Your task to perform on an android device: turn pop-ups off in chrome Image 0: 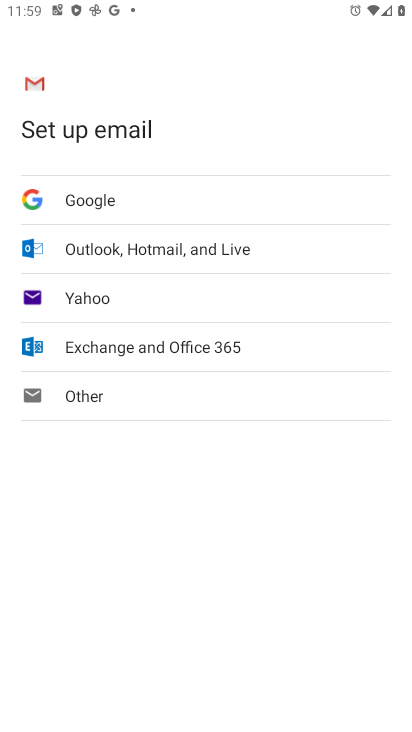
Step 0: press home button
Your task to perform on an android device: turn pop-ups off in chrome Image 1: 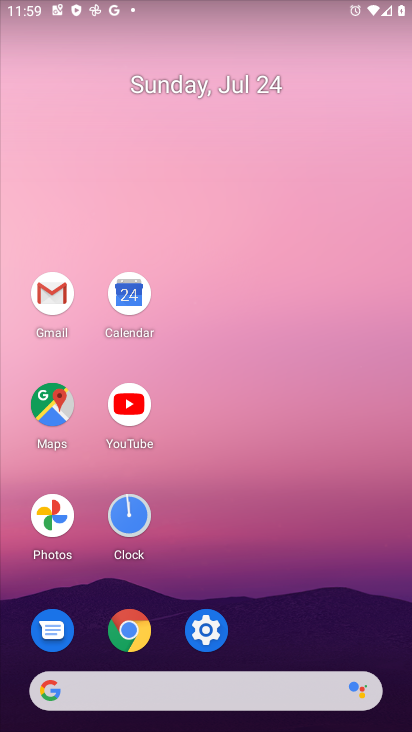
Step 1: click (129, 631)
Your task to perform on an android device: turn pop-ups off in chrome Image 2: 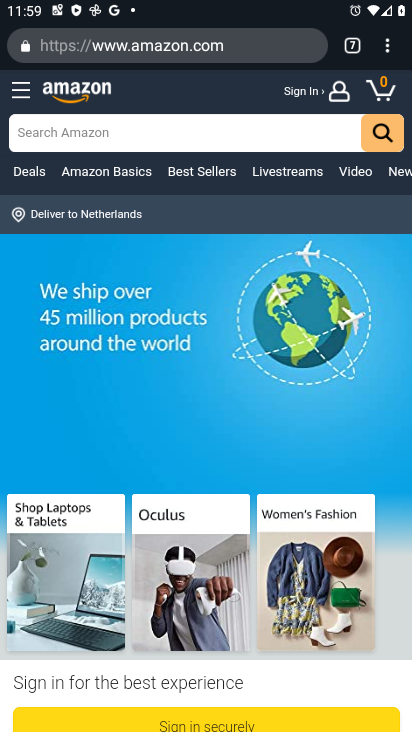
Step 2: click (392, 50)
Your task to perform on an android device: turn pop-ups off in chrome Image 3: 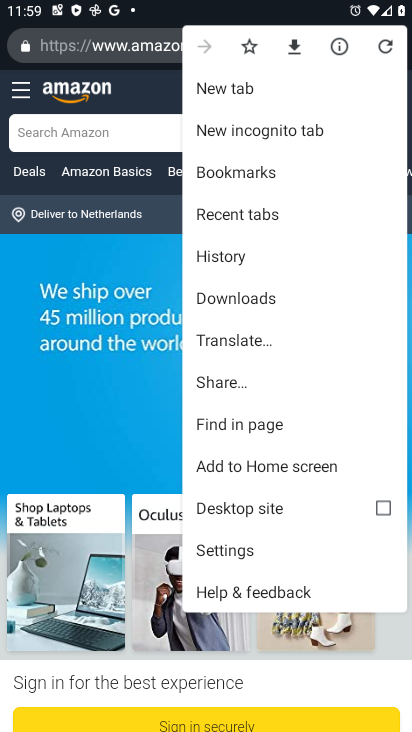
Step 3: click (224, 543)
Your task to perform on an android device: turn pop-ups off in chrome Image 4: 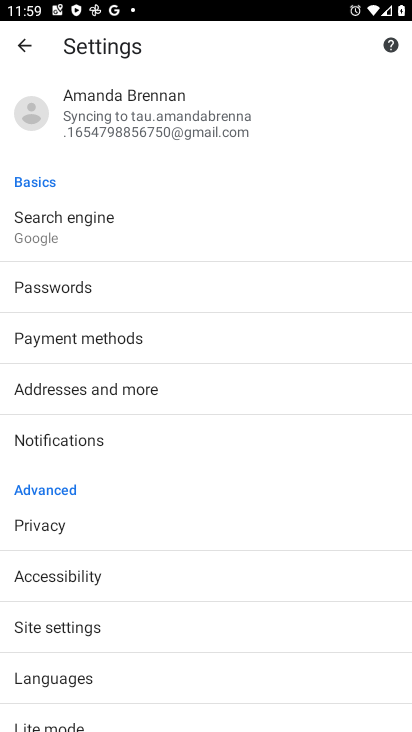
Step 4: click (71, 623)
Your task to perform on an android device: turn pop-ups off in chrome Image 5: 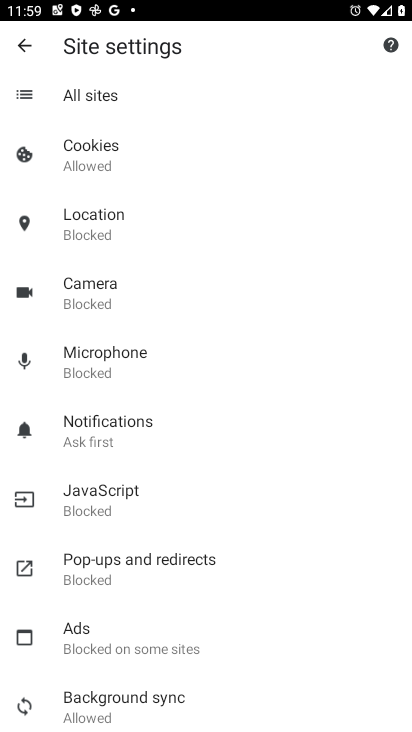
Step 5: click (104, 555)
Your task to perform on an android device: turn pop-ups off in chrome Image 6: 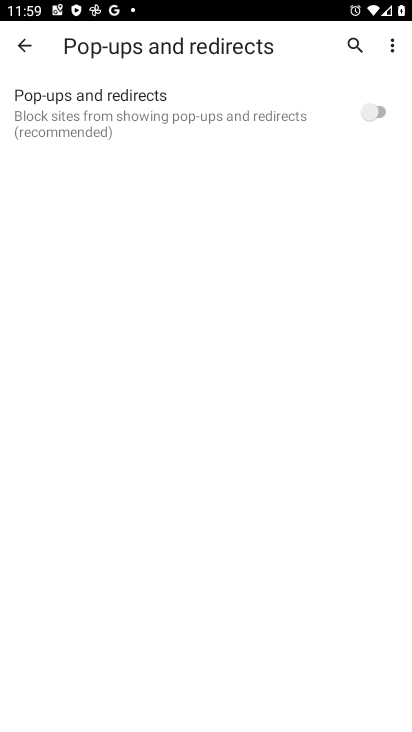
Step 6: task complete